Your task to perform on an android device: Open calendar and show me the fourth week of next month Image 0: 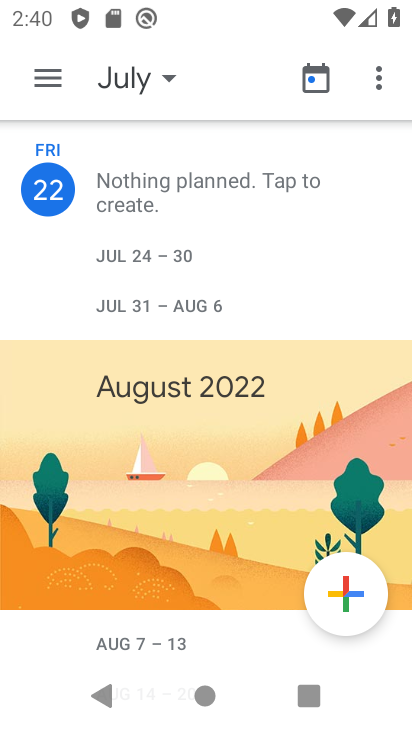
Step 0: click (158, 76)
Your task to perform on an android device: Open calendar and show me the fourth week of next month Image 1: 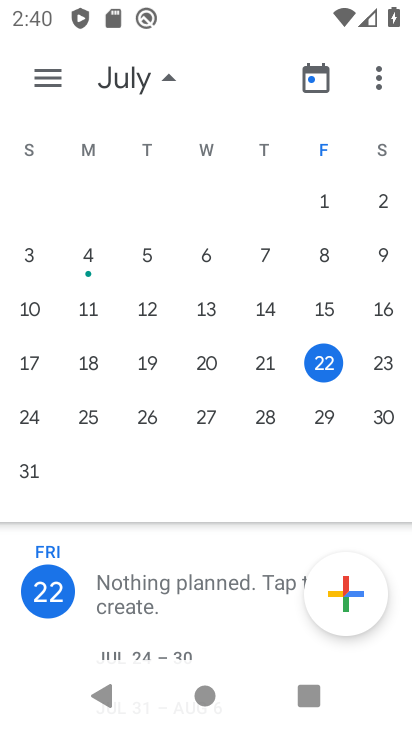
Step 1: drag from (380, 306) to (5, 356)
Your task to perform on an android device: Open calendar and show me the fourth week of next month Image 2: 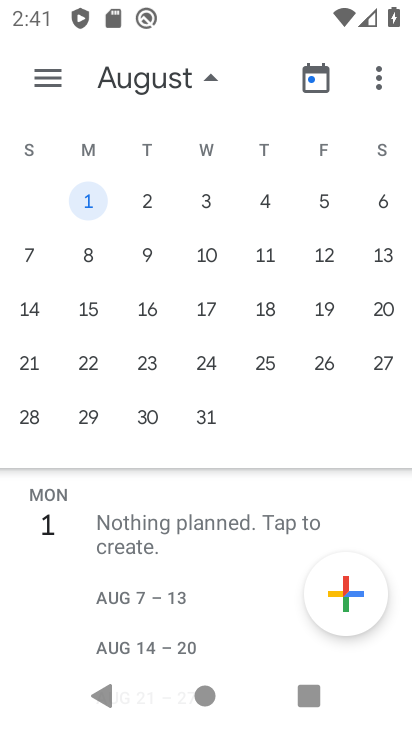
Step 2: click (89, 360)
Your task to perform on an android device: Open calendar and show me the fourth week of next month Image 3: 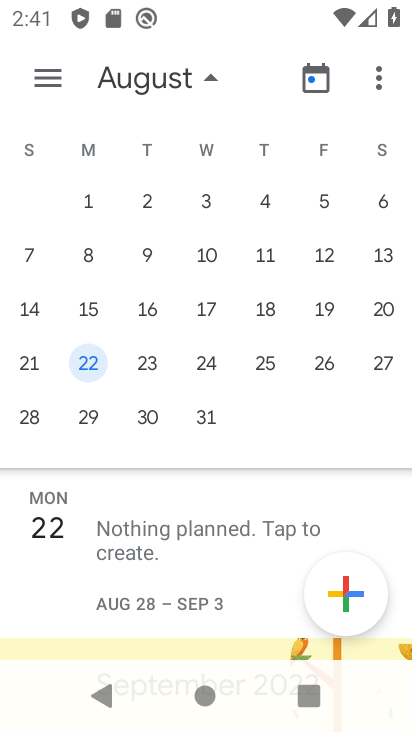
Step 3: task complete